Your task to perform on an android device: Open calendar and show me the first week of next month Image 0: 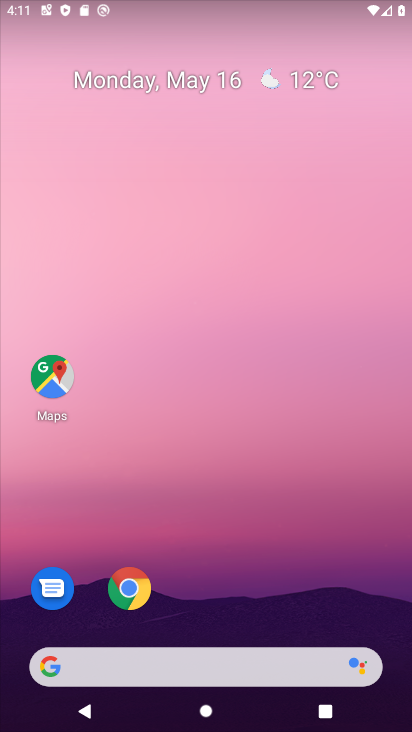
Step 0: click (191, 83)
Your task to perform on an android device: Open calendar and show me the first week of next month Image 1: 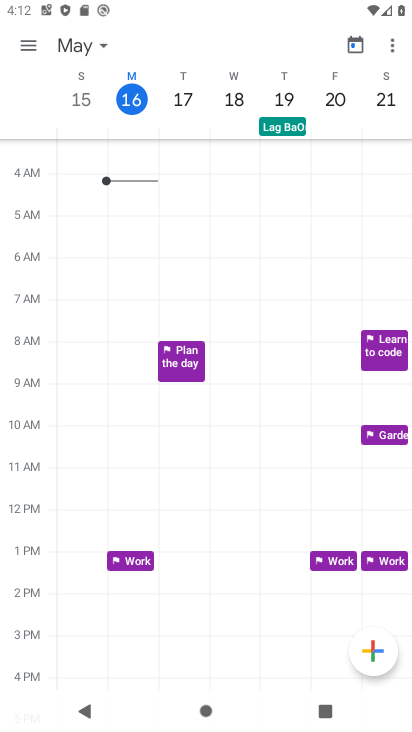
Step 1: click (92, 46)
Your task to perform on an android device: Open calendar and show me the first week of next month Image 2: 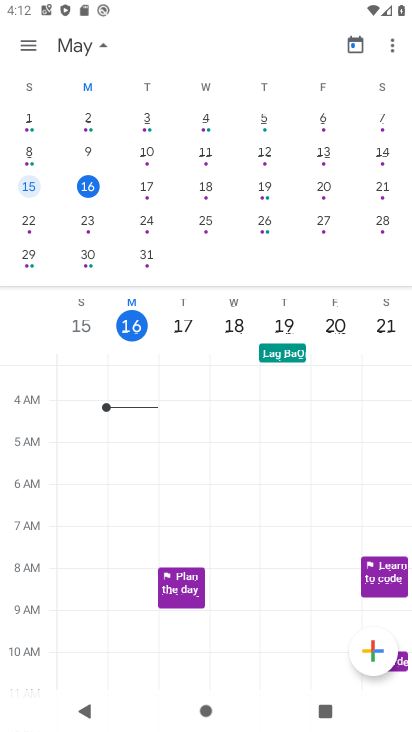
Step 2: drag from (362, 254) to (4, 188)
Your task to perform on an android device: Open calendar and show me the first week of next month Image 3: 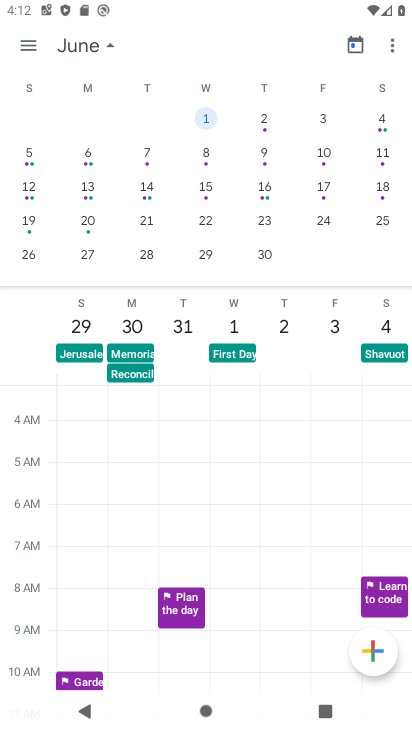
Step 3: click (260, 118)
Your task to perform on an android device: Open calendar and show me the first week of next month Image 4: 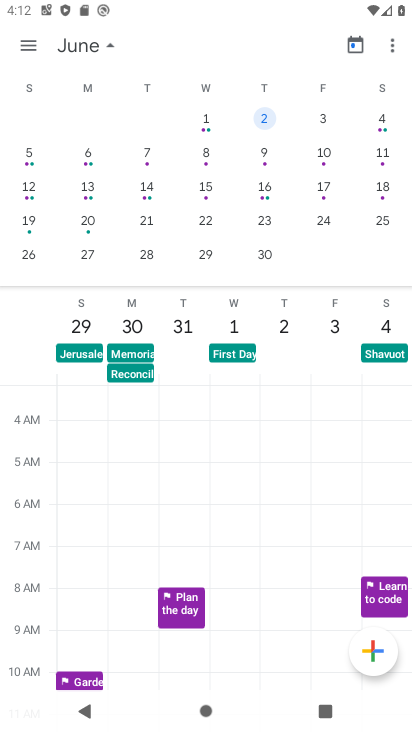
Step 4: task complete